Your task to perform on an android device: delete location history Image 0: 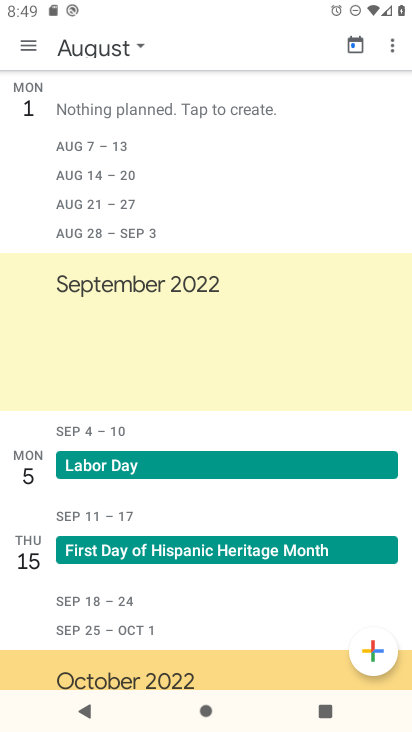
Step 0: press home button
Your task to perform on an android device: delete location history Image 1: 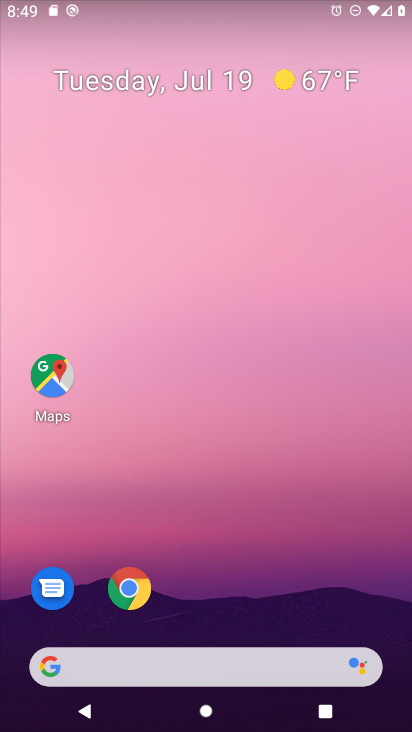
Step 1: drag from (345, 586) to (339, 144)
Your task to perform on an android device: delete location history Image 2: 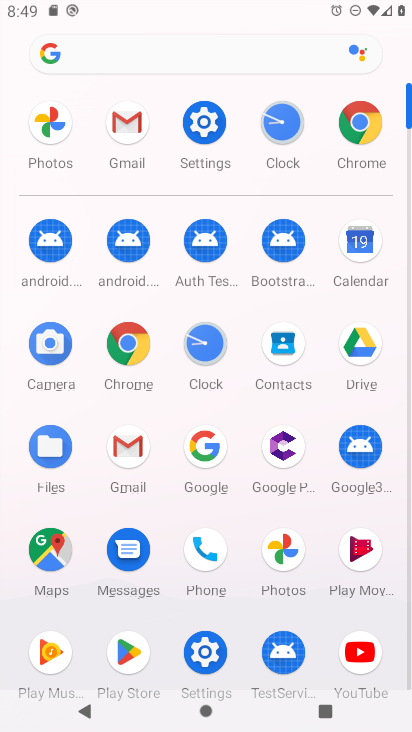
Step 2: click (59, 552)
Your task to perform on an android device: delete location history Image 3: 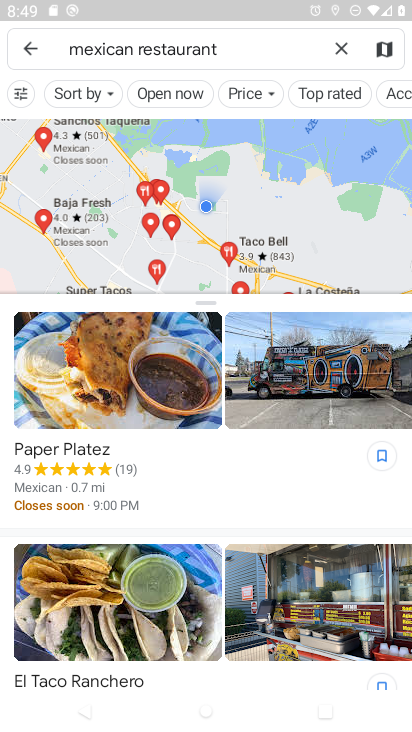
Step 3: press back button
Your task to perform on an android device: delete location history Image 4: 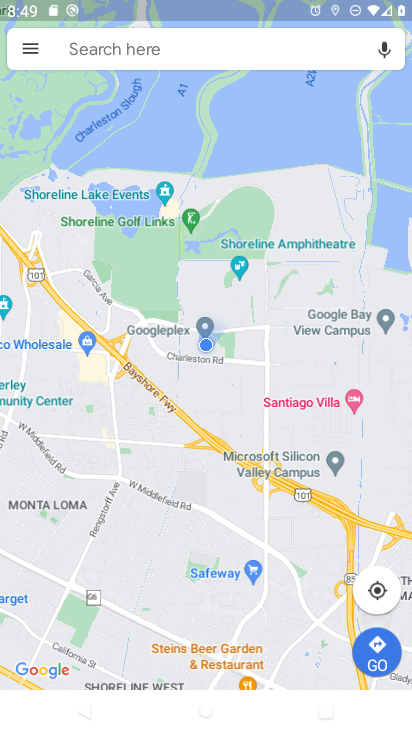
Step 4: click (29, 45)
Your task to perform on an android device: delete location history Image 5: 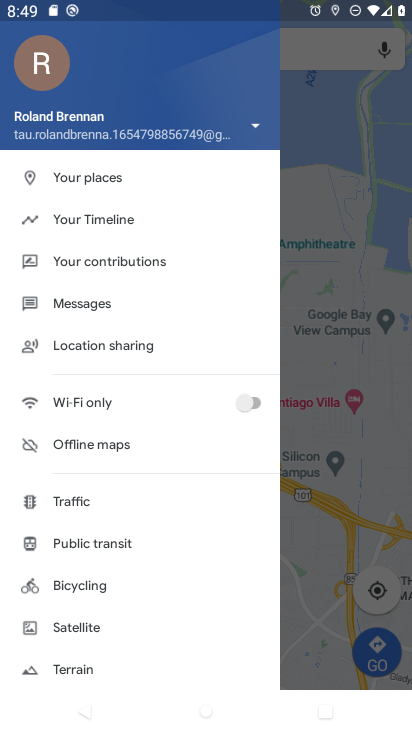
Step 5: click (121, 231)
Your task to perform on an android device: delete location history Image 6: 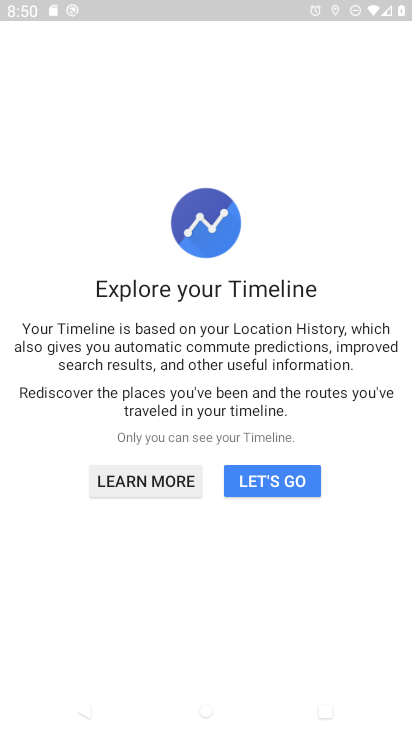
Step 6: click (269, 474)
Your task to perform on an android device: delete location history Image 7: 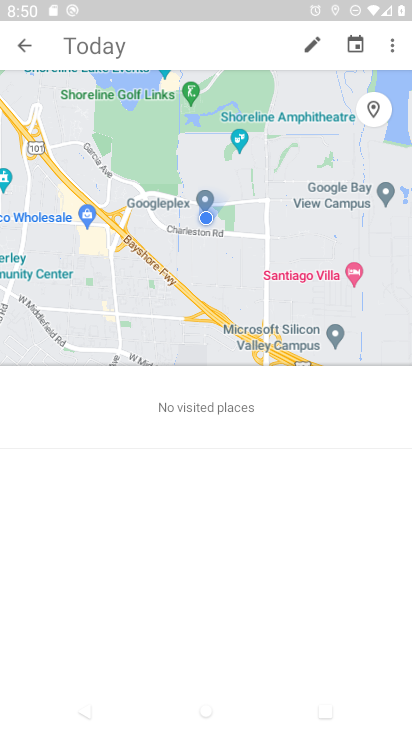
Step 7: click (388, 50)
Your task to perform on an android device: delete location history Image 8: 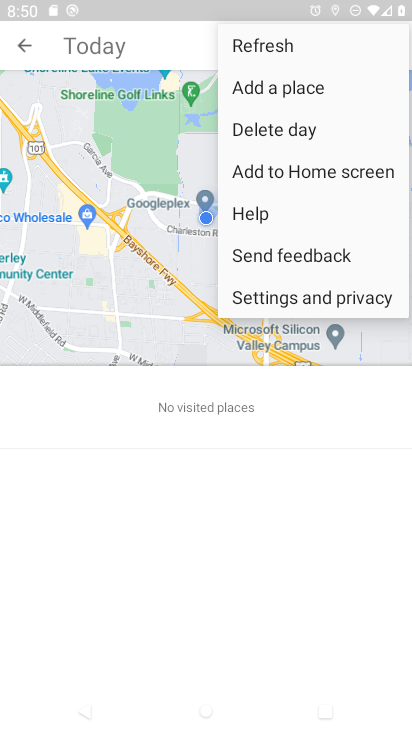
Step 8: click (327, 300)
Your task to perform on an android device: delete location history Image 9: 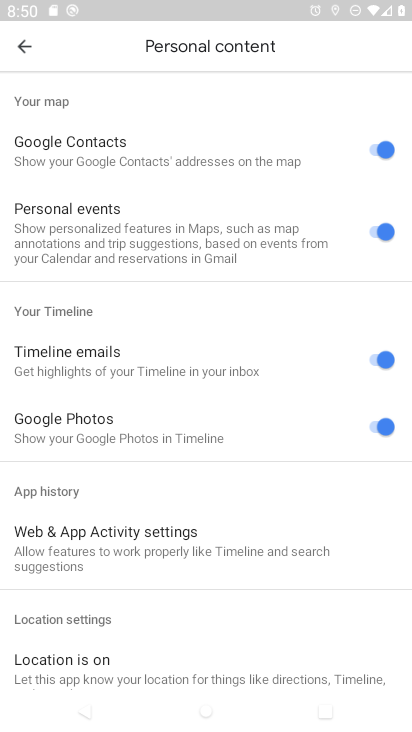
Step 9: drag from (334, 490) to (326, 373)
Your task to perform on an android device: delete location history Image 10: 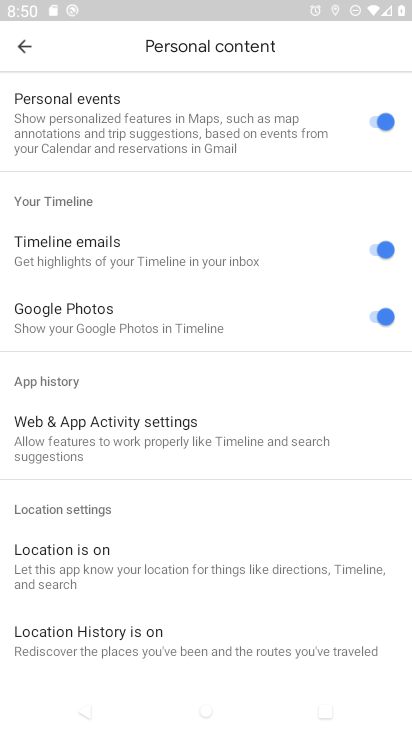
Step 10: drag from (305, 494) to (313, 421)
Your task to perform on an android device: delete location history Image 11: 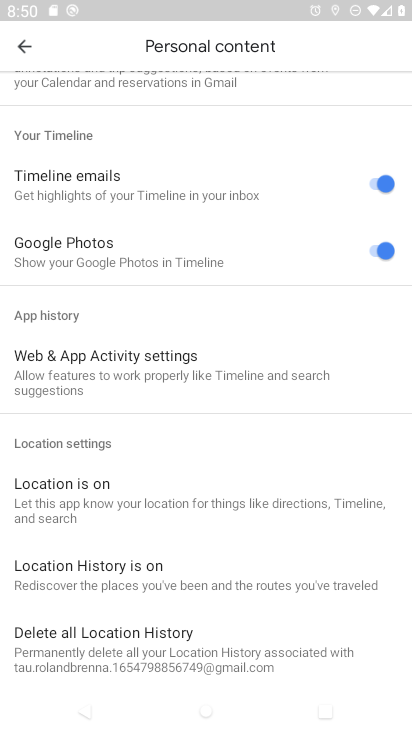
Step 11: drag from (316, 559) to (315, 437)
Your task to perform on an android device: delete location history Image 12: 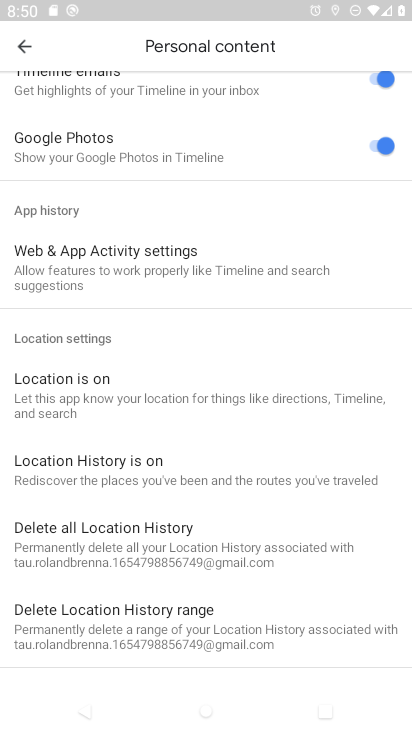
Step 12: click (291, 536)
Your task to perform on an android device: delete location history Image 13: 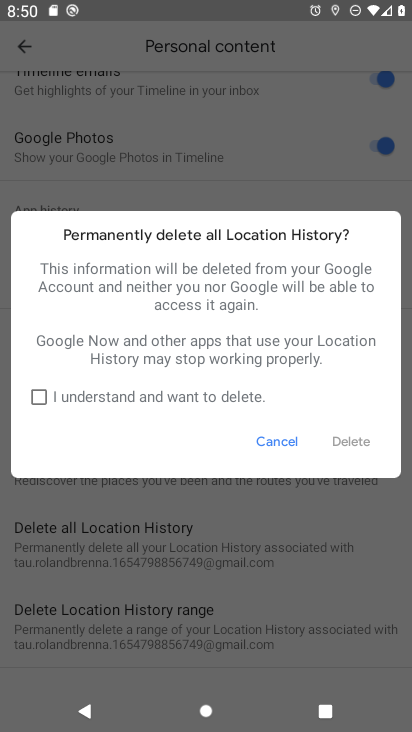
Step 13: click (33, 394)
Your task to perform on an android device: delete location history Image 14: 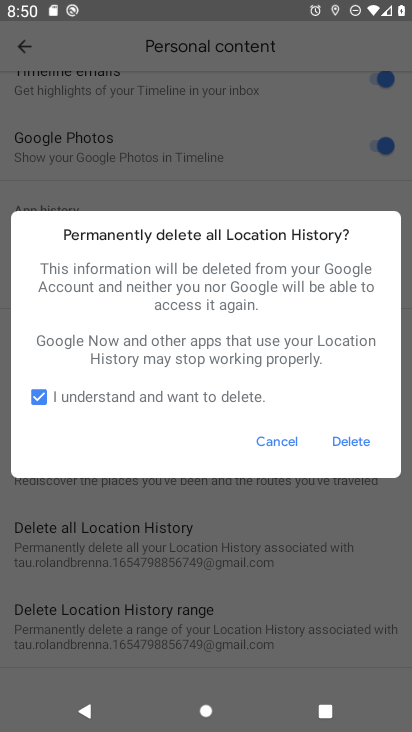
Step 14: click (346, 431)
Your task to perform on an android device: delete location history Image 15: 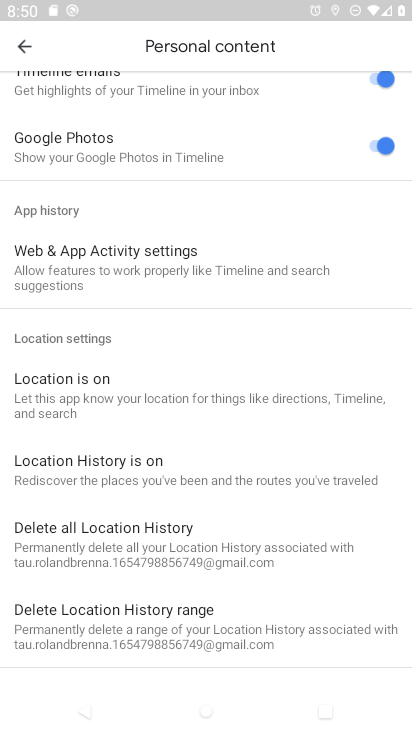
Step 15: click (350, 442)
Your task to perform on an android device: delete location history Image 16: 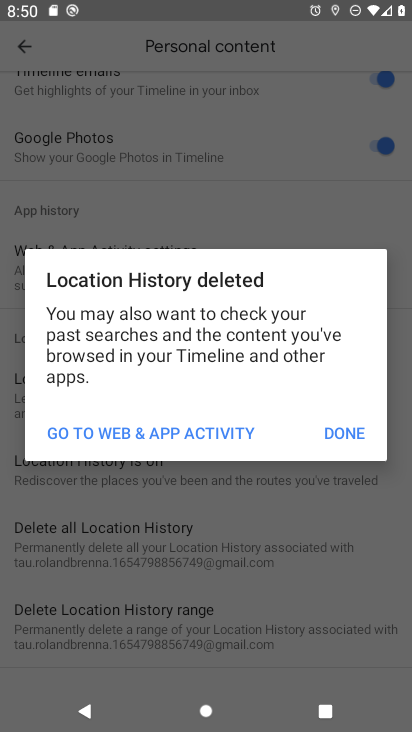
Step 16: click (364, 434)
Your task to perform on an android device: delete location history Image 17: 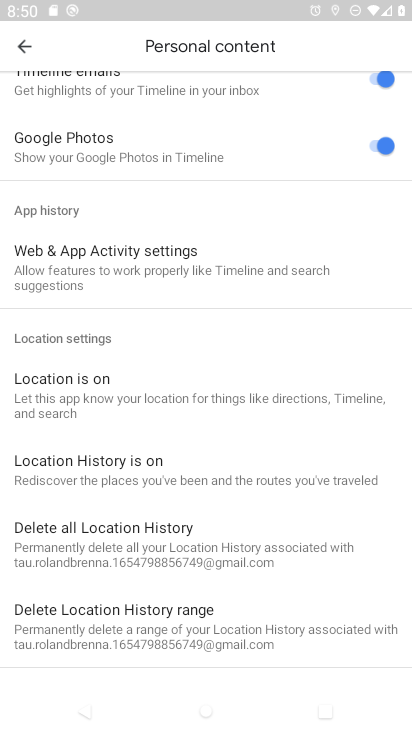
Step 17: task complete